Your task to perform on an android device: open chrome and create a bookmark for the current page Image 0: 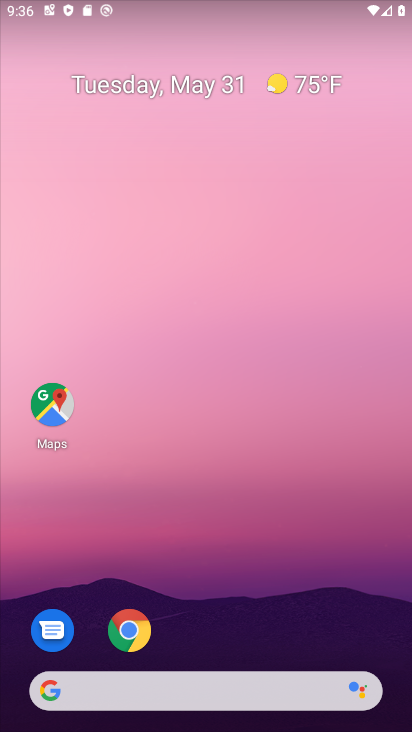
Step 0: drag from (257, 627) to (274, 97)
Your task to perform on an android device: open chrome and create a bookmark for the current page Image 1: 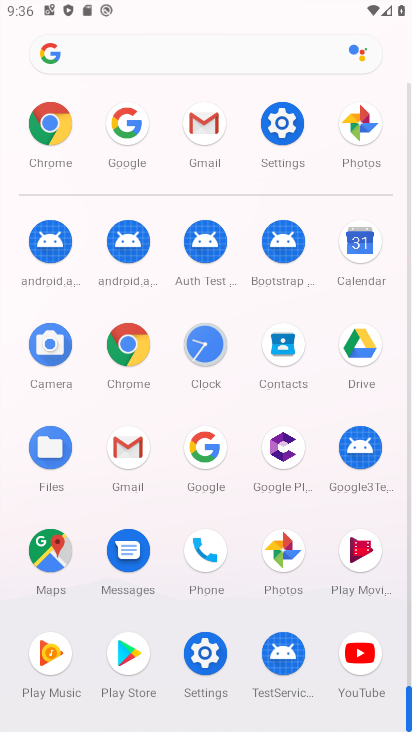
Step 1: click (123, 367)
Your task to perform on an android device: open chrome and create a bookmark for the current page Image 2: 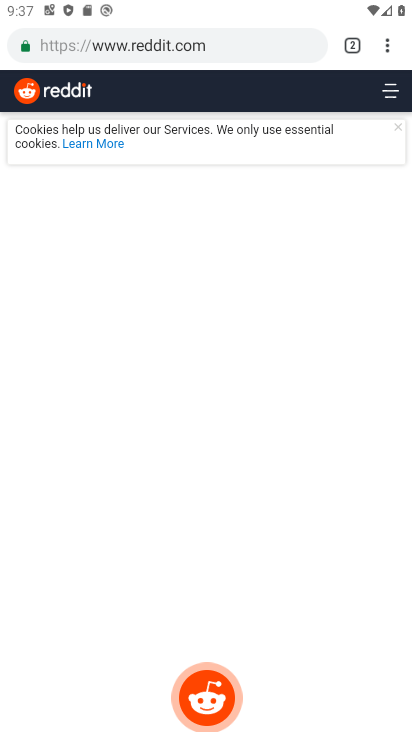
Step 2: click (352, 49)
Your task to perform on an android device: open chrome and create a bookmark for the current page Image 3: 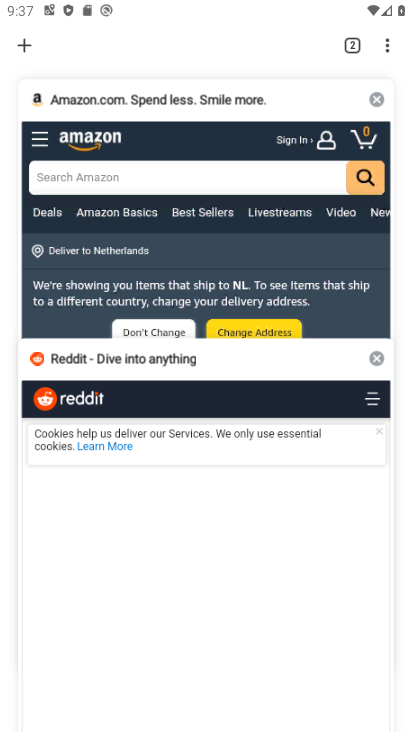
Step 3: click (228, 508)
Your task to perform on an android device: open chrome and create a bookmark for the current page Image 4: 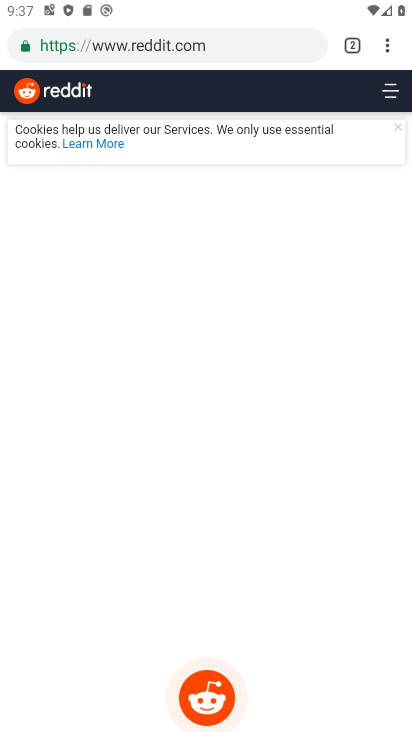
Step 4: click (385, 50)
Your task to perform on an android device: open chrome and create a bookmark for the current page Image 5: 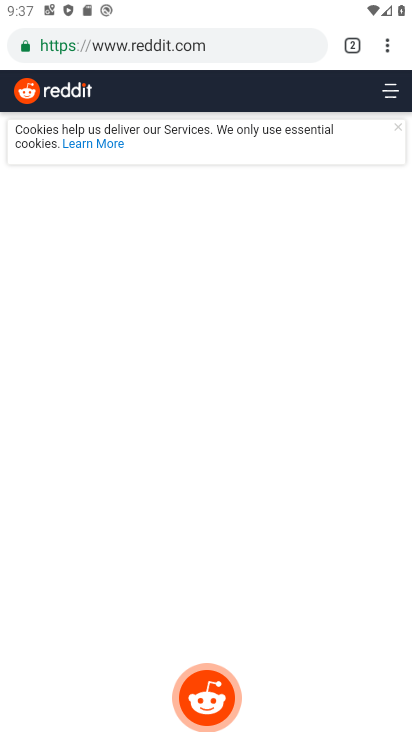
Step 5: click (389, 60)
Your task to perform on an android device: open chrome and create a bookmark for the current page Image 6: 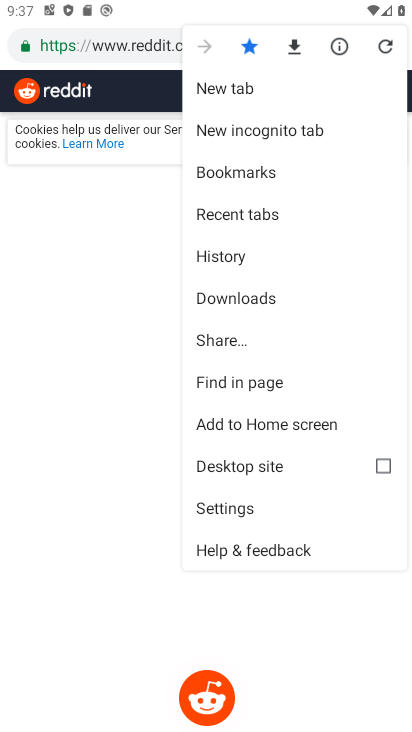
Step 6: task complete